Your task to perform on an android device: turn on sleep mode Image 0: 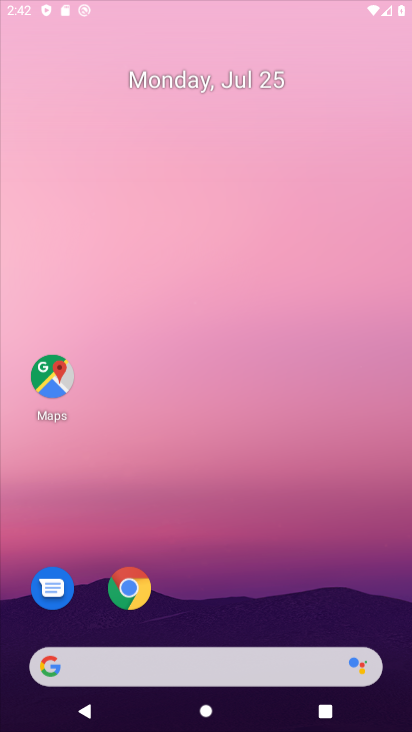
Step 0: click (225, 137)
Your task to perform on an android device: turn on sleep mode Image 1: 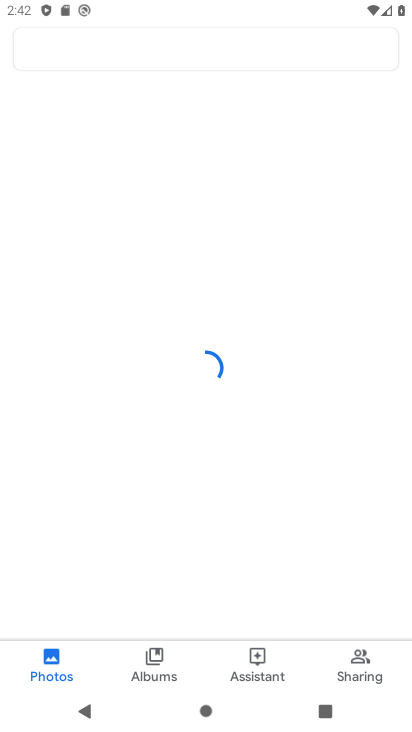
Step 1: press home button
Your task to perform on an android device: turn on sleep mode Image 2: 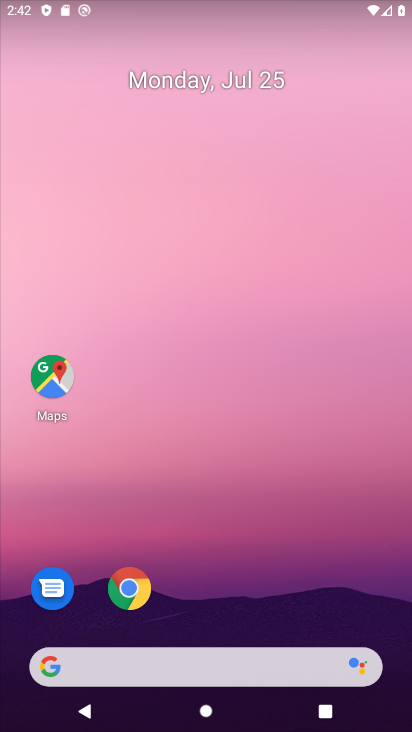
Step 2: drag from (219, 593) to (210, 200)
Your task to perform on an android device: turn on sleep mode Image 3: 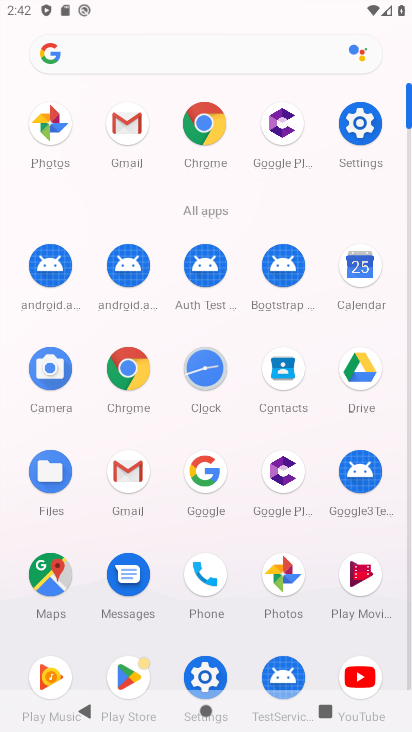
Step 3: click (360, 127)
Your task to perform on an android device: turn on sleep mode Image 4: 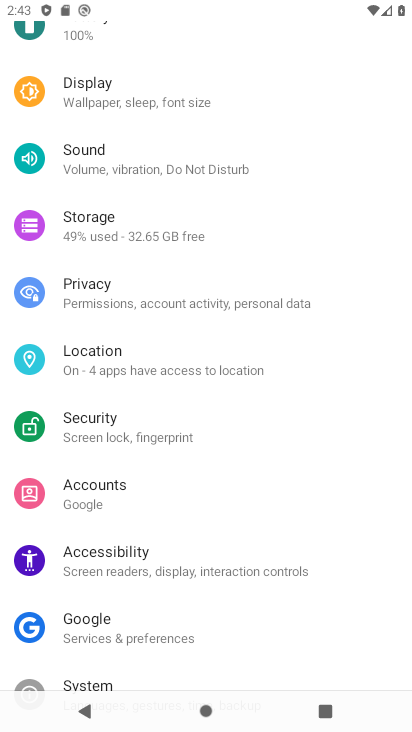
Step 4: task complete